Your task to perform on an android device: set an alarm Image 0: 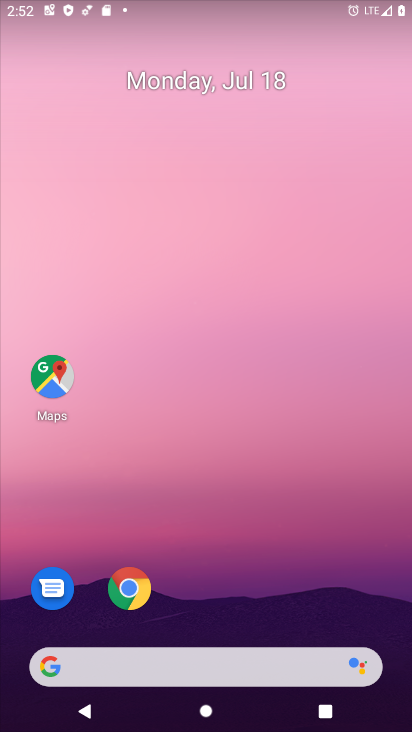
Step 0: drag from (259, 591) to (299, 15)
Your task to perform on an android device: set an alarm Image 1: 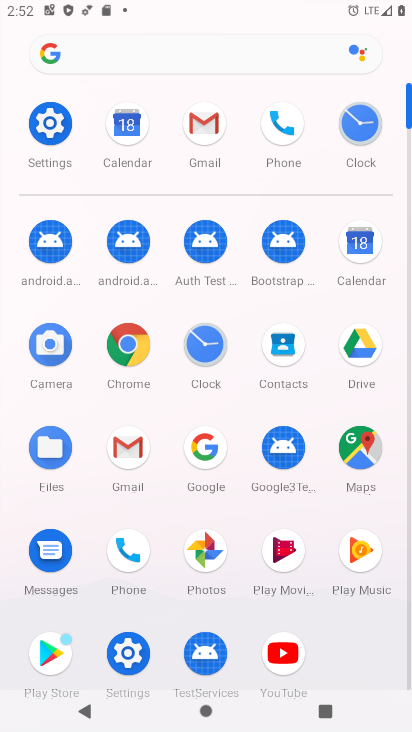
Step 1: click (200, 369)
Your task to perform on an android device: set an alarm Image 2: 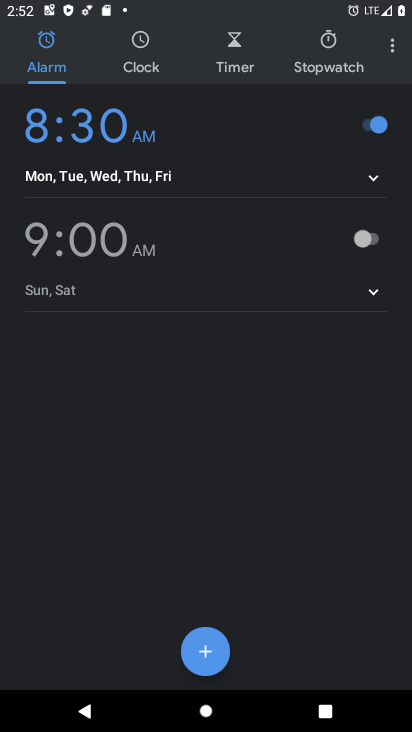
Step 2: click (359, 252)
Your task to perform on an android device: set an alarm Image 3: 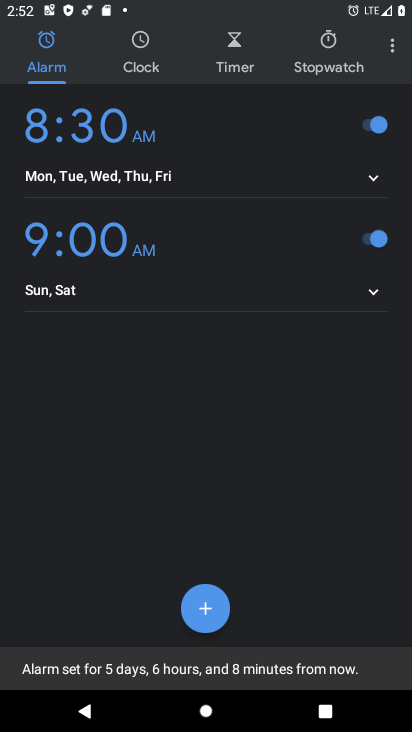
Step 3: task complete